Your task to perform on an android device: Show me the alarms in the clock app Image 0: 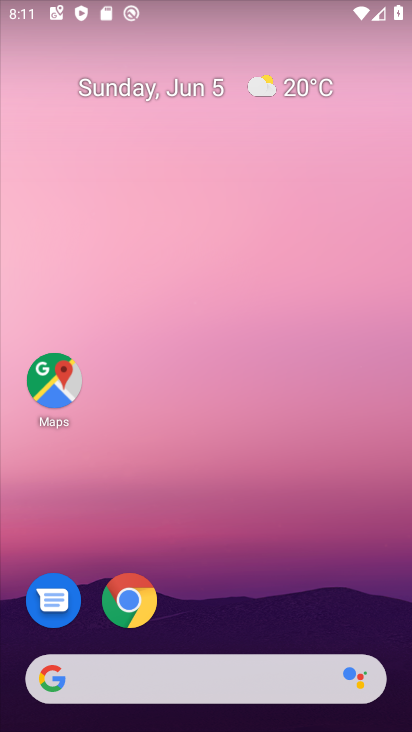
Step 0: drag from (207, 654) to (356, 9)
Your task to perform on an android device: Show me the alarms in the clock app Image 1: 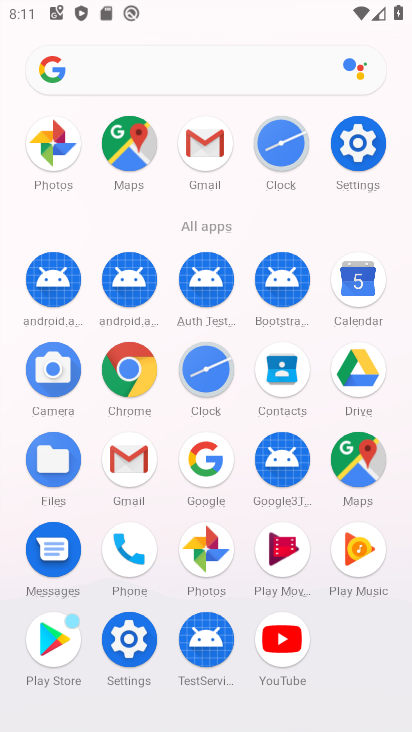
Step 1: click (221, 372)
Your task to perform on an android device: Show me the alarms in the clock app Image 2: 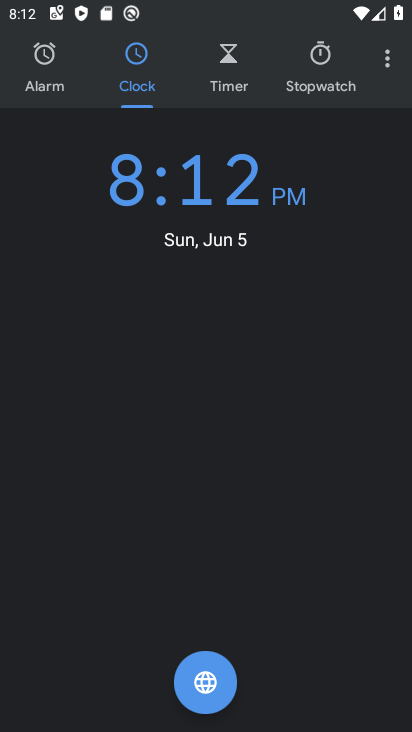
Step 2: click (62, 74)
Your task to perform on an android device: Show me the alarms in the clock app Image 3: 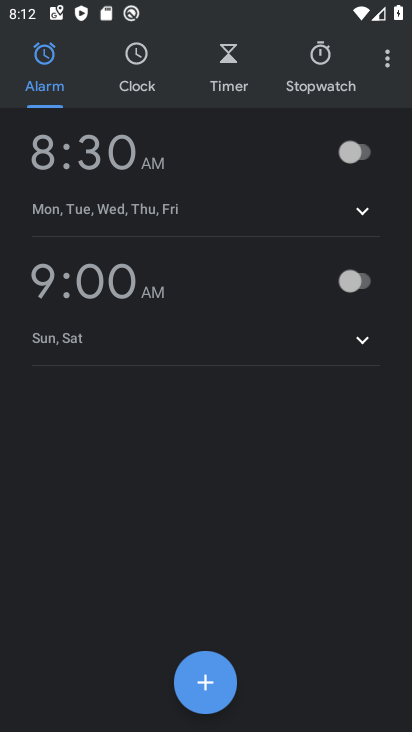
Step 3: task complete